Your task to perform on an android device: refresh tabs in the chrome app Image 0: 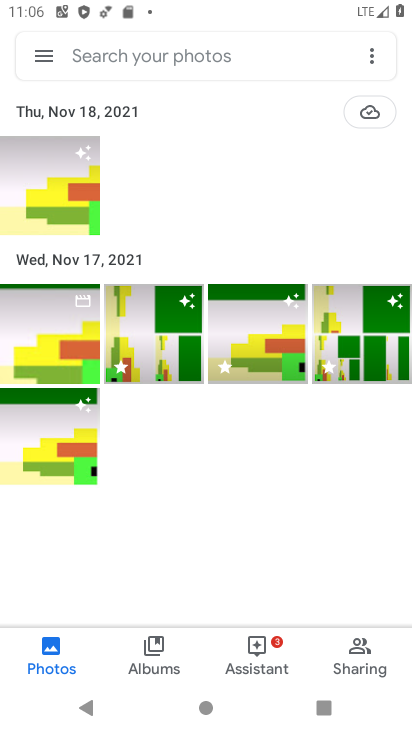
Step 0: press home button
Your task to perform on an android device: refresh tabs in the chrome app Image 1: 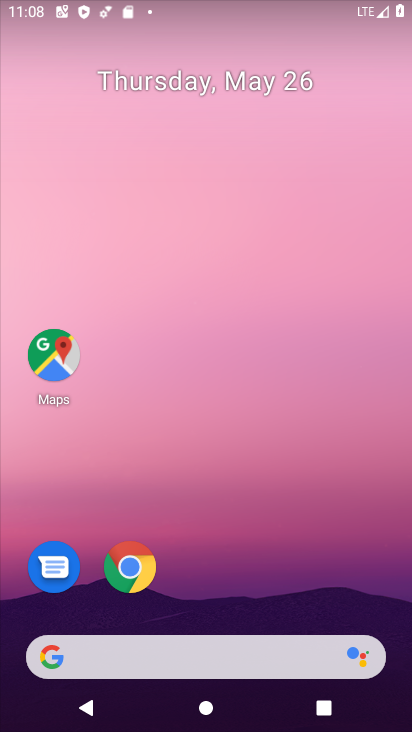
Step 1: click (136, 566)
Your task to perform on an android device: refresh tabs in the chrome app Image 2: 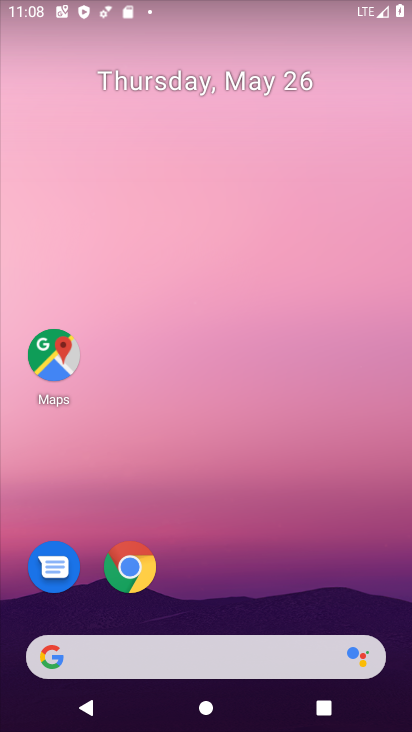
Step 2: click (136, 566)
Your task to perform on an android device: refresh tabs in the chrome app Image 3: 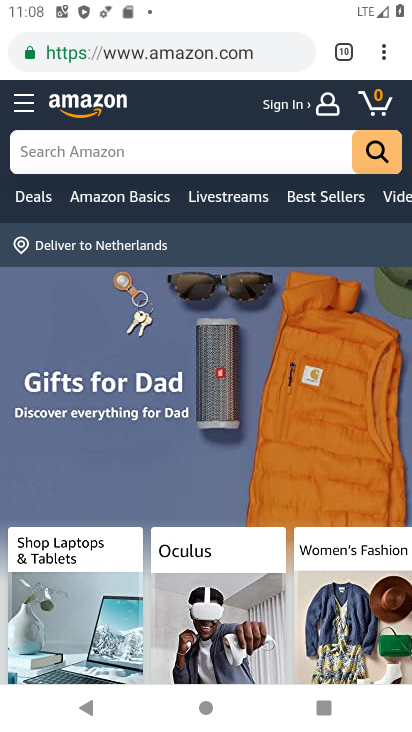
Step 3: click (383, 46)
Your task to perform on an android device: refresh tabs in the chrome app Image 4: 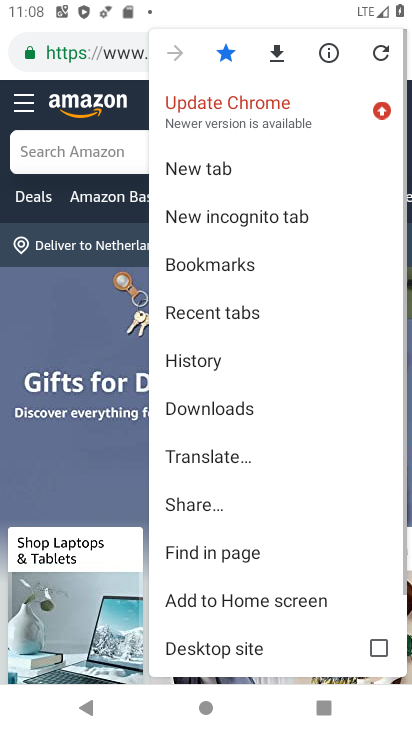
Step 4: click (374, 54)
Your task to perform on an android device: refresh tabs in the chrome app Image 5: 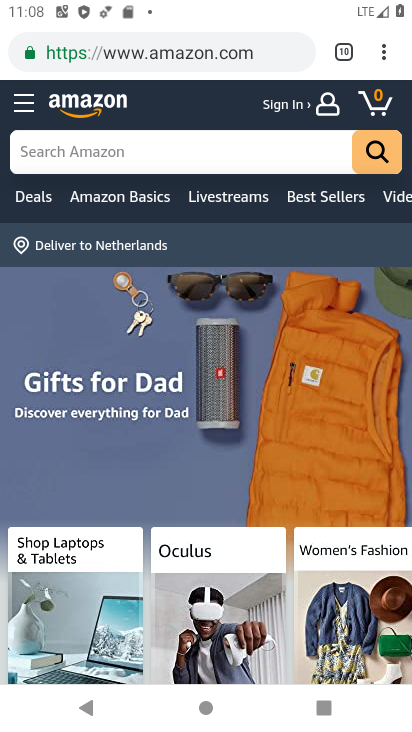
Step 5: task complete